Your task to perform on an android device: Show the shopping cart on ebay. Image 0: 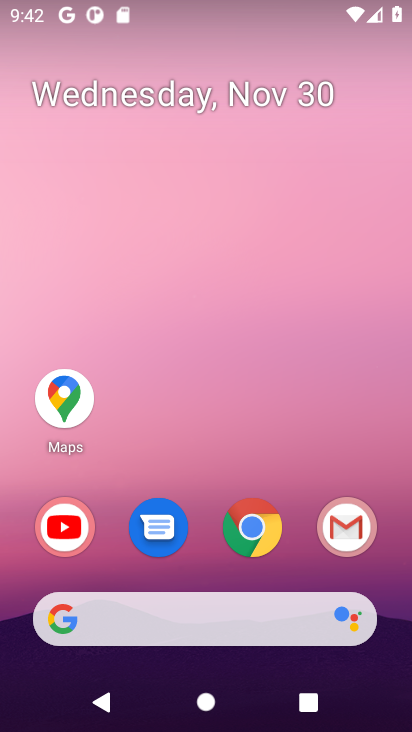
Step 0: click (250, 532)
Your task to perform on an android device: Show the shopping cart on ebay. Image 1: 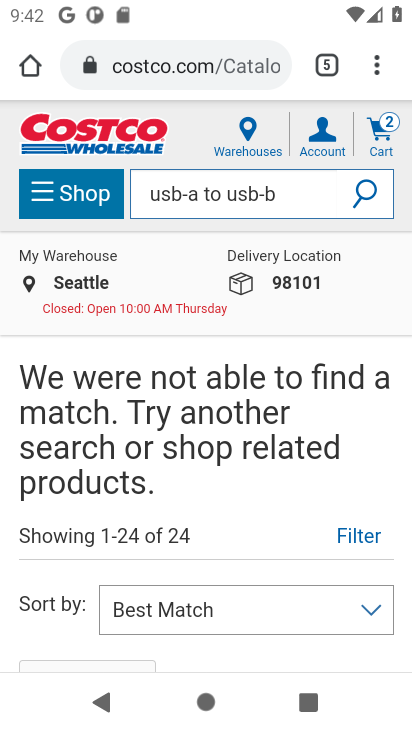
Step 1: click (255, 63)
Your task to perform on an android device: Show the shopping cart on ebay. Image 2: 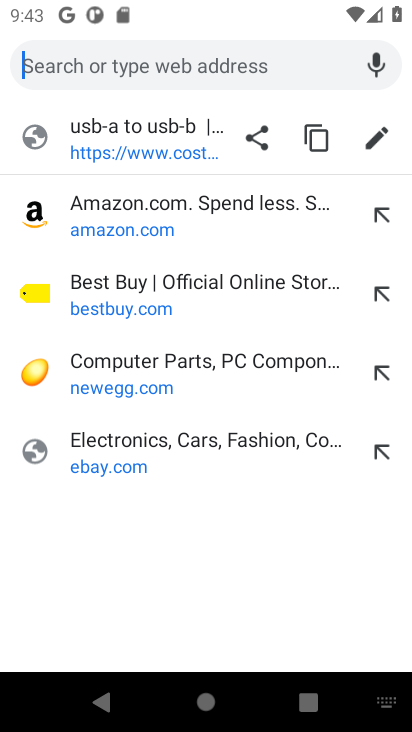
Step 2: click (153, 441)
Your task to perform on an android device: Show the shopping cart on ebay. Image 3: 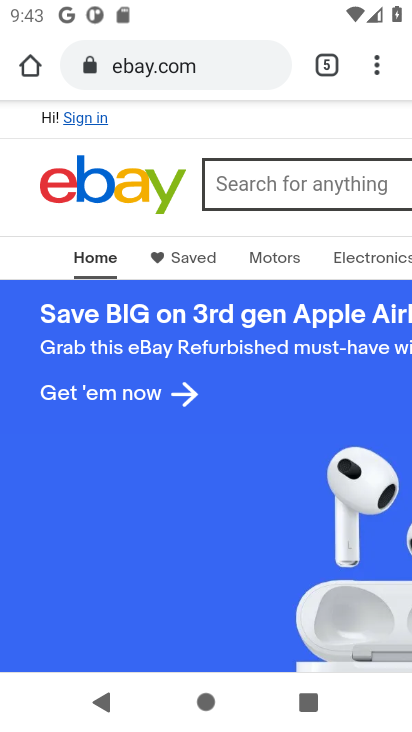
Step 3: task complete